Your task to perform on an android device: uninstall "Microsoft Excel" Image 0: 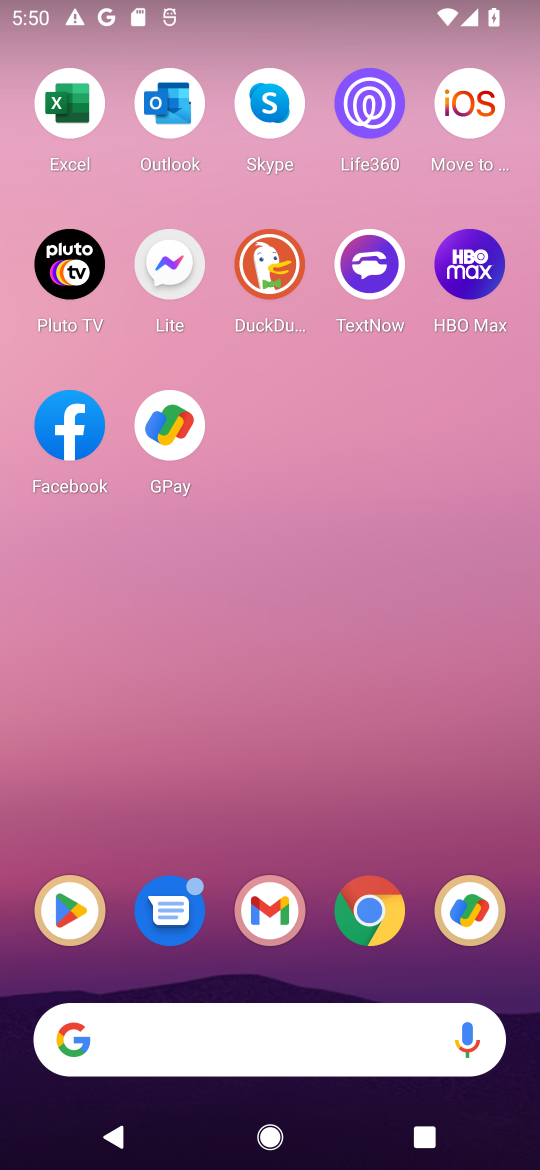
Step 0: drag from (312, 1009) to (312, 317)
Your task to perform on an android device: uninstall "Microsoft Excel" Image 1: 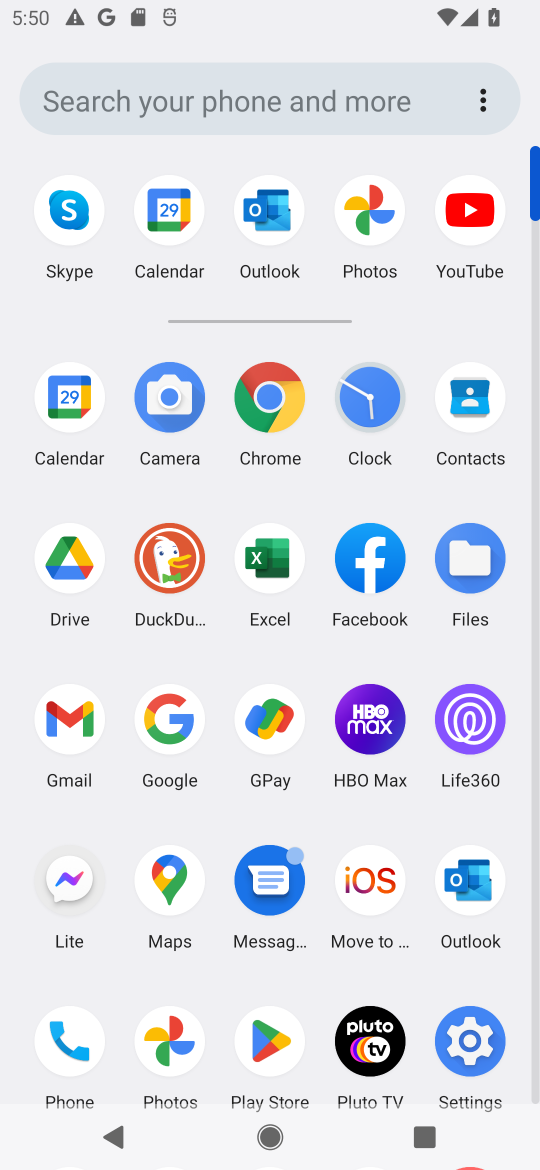
Step 1: click (269, 1041)
Your task to perform on an android device: uninstall "Microsoft Excel" Image 2: 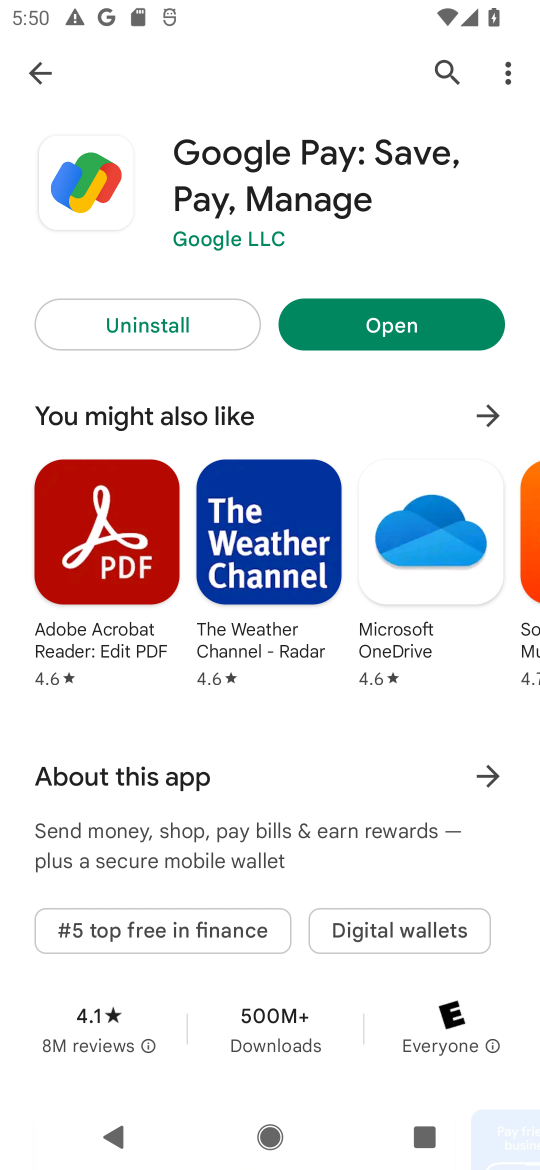
Step 2: click (42, 84)
Your task to perform on an android device: uninstall "Microsoft Excel" Image 3: 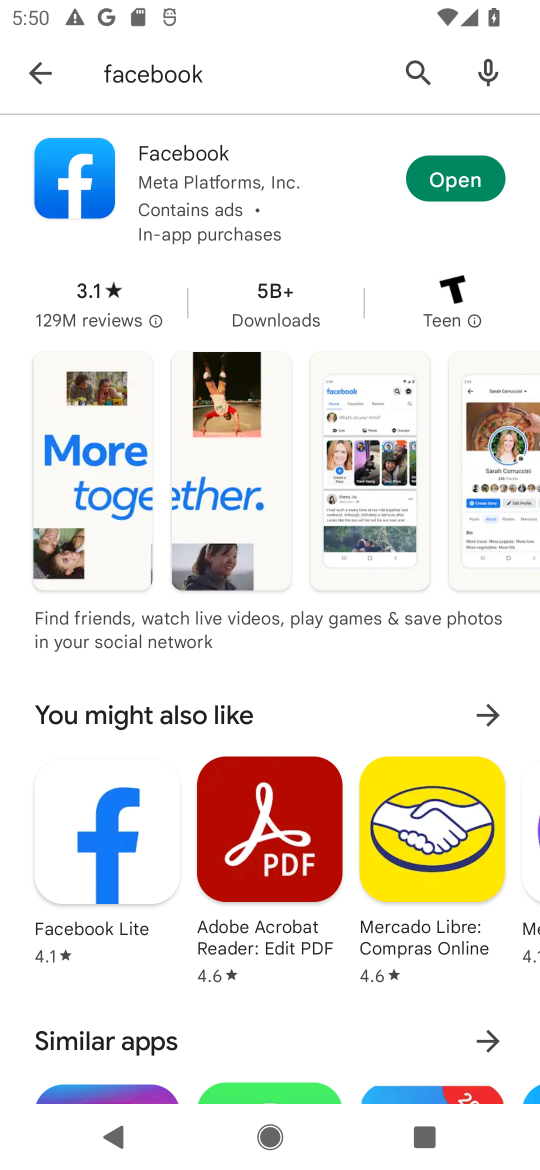
Step 3: type "Microsoft Excel"
Your task to perform on an android device: uninstall "Microsoft Excel" Image 4: 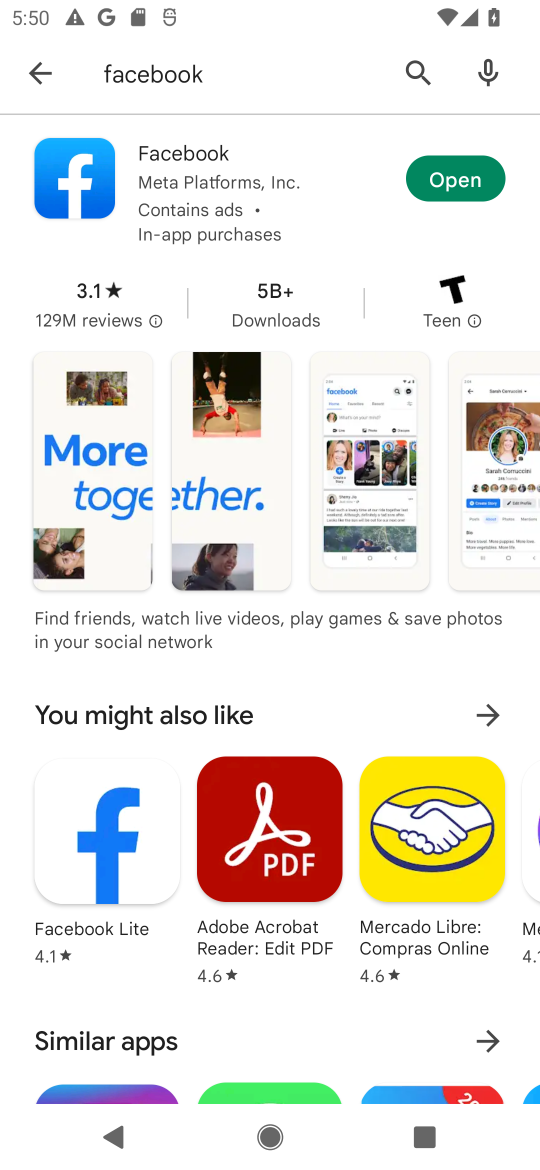
Step 4: click (51, 72)
Your task to perform on an android device: uninstall "Microsoft Excel" Image 5: 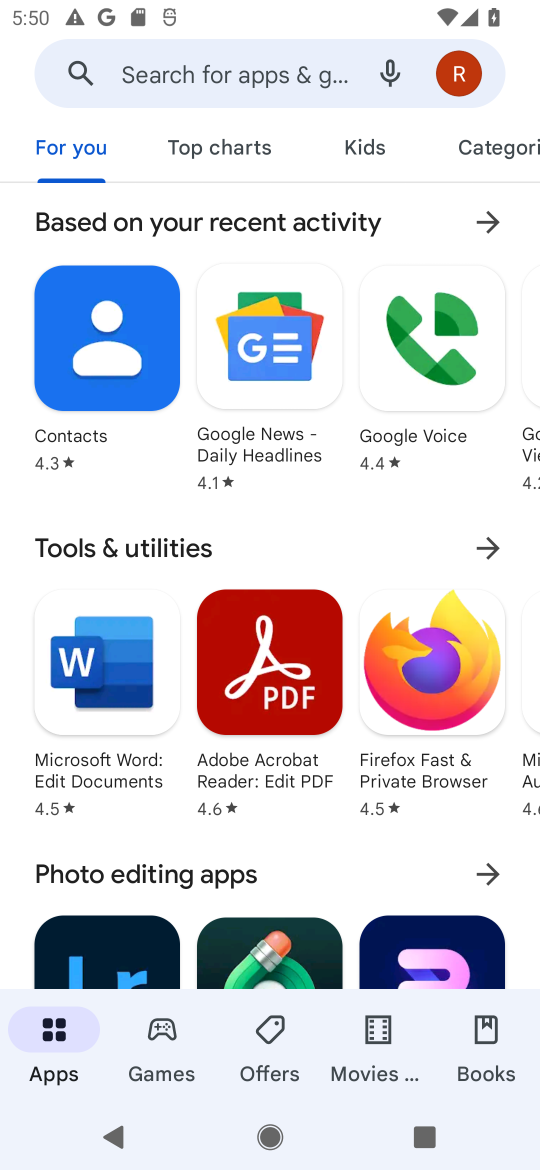
Step 5: click (148, 74)
Your task to perform on an android device: uninstall "Microsoft Excel" Image 6: 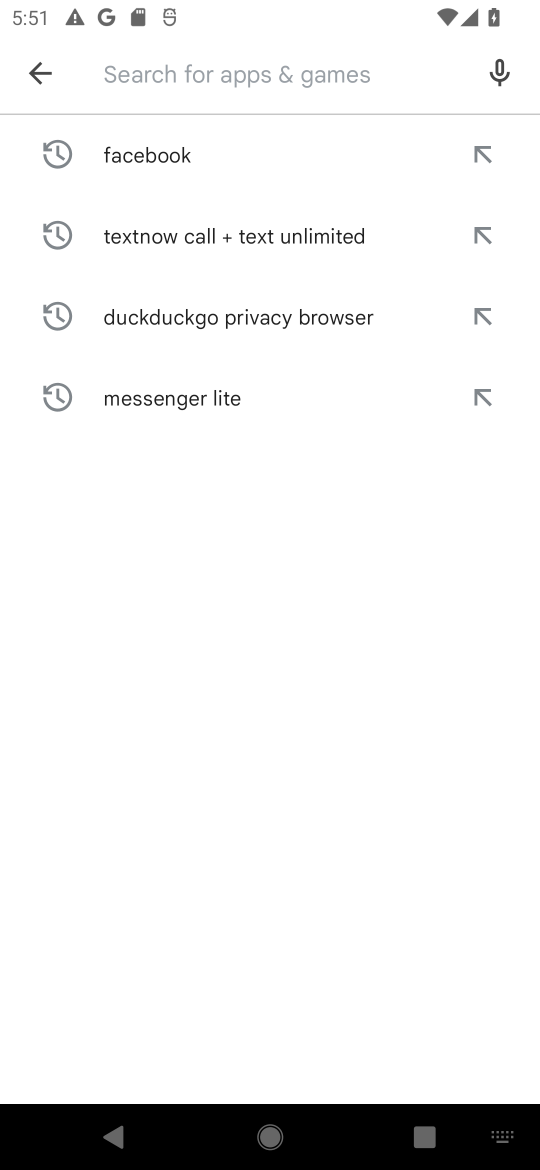
Step 6: type "Microsoft Excel"
Your task to perform on an android device: uninstall "Microsoft Excel" Image 7: 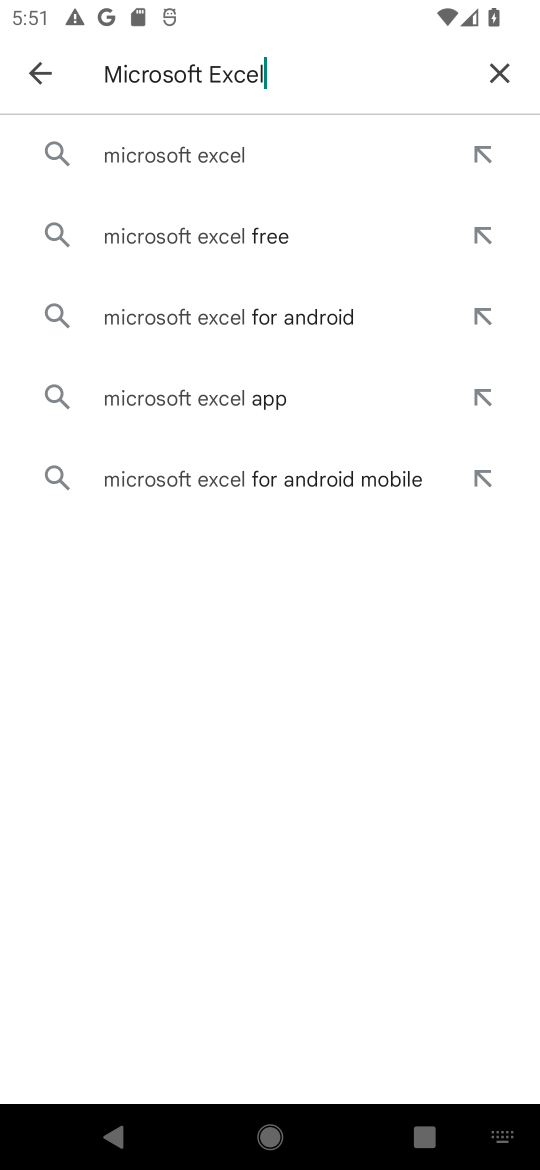
Step 7: click (172, 145)
Your task to perform on an android device: uninstall "Microsoft Excel" Image 8: 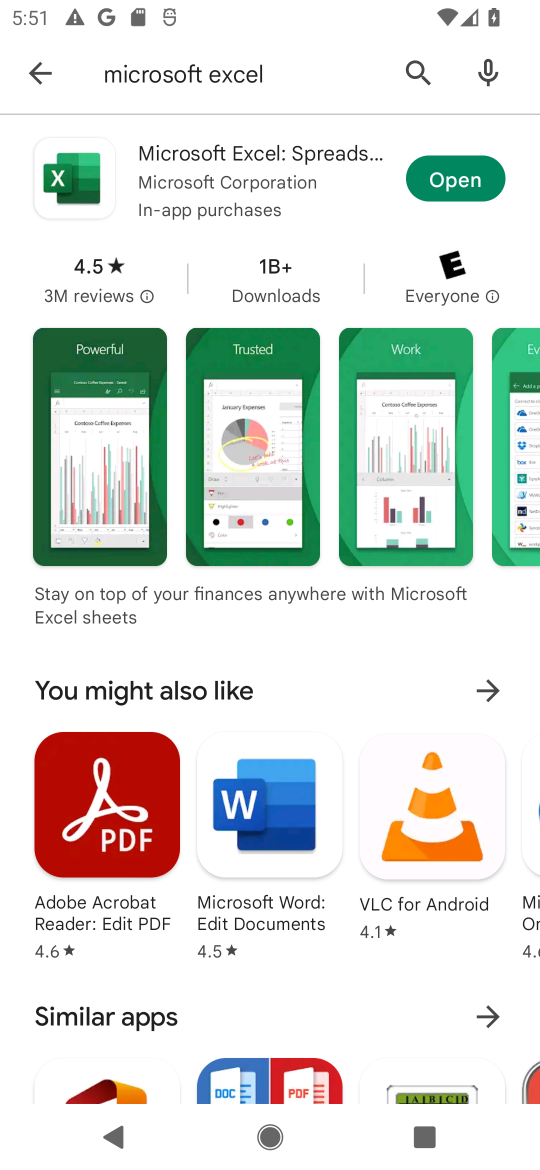
Step 8: click (308, 178)
Your task to perform on an android device: uninstall "Microsoft Excel" Image 9: 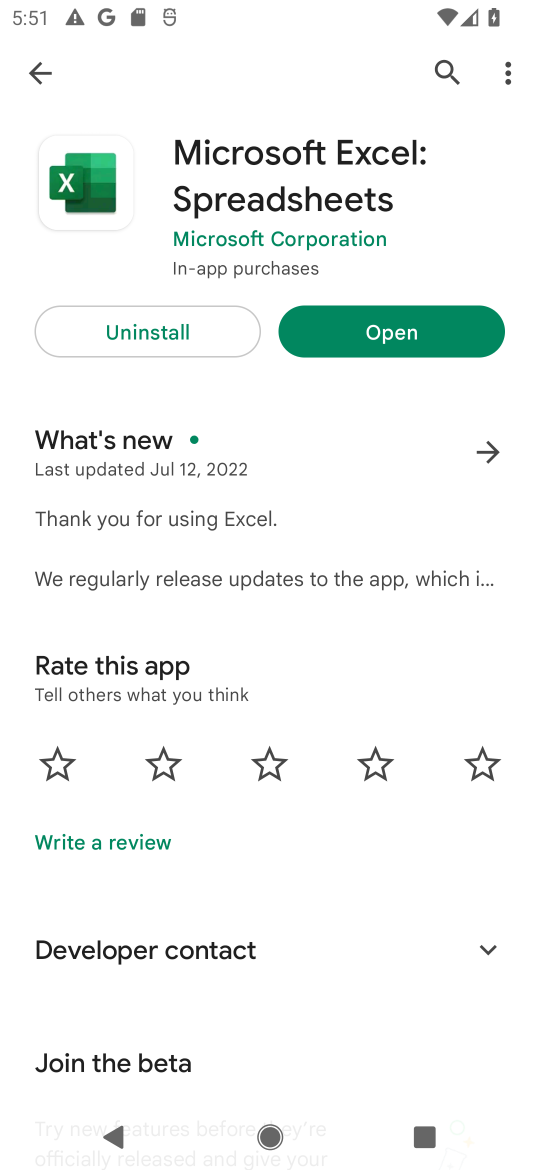
Step 9: click (164, 331)
Your task to perform on an android device: uninstall "Microsoft Excel" Image 10: 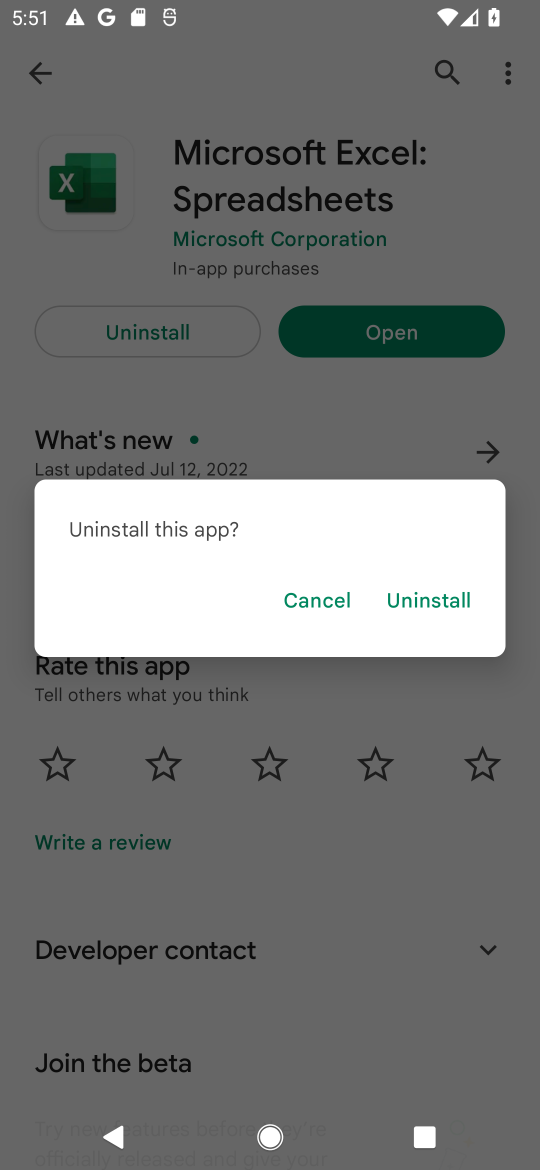
Step 10: click (409, 592)
Your task to perform on an android device: uninstall "Microsoft Excel" Image 11: 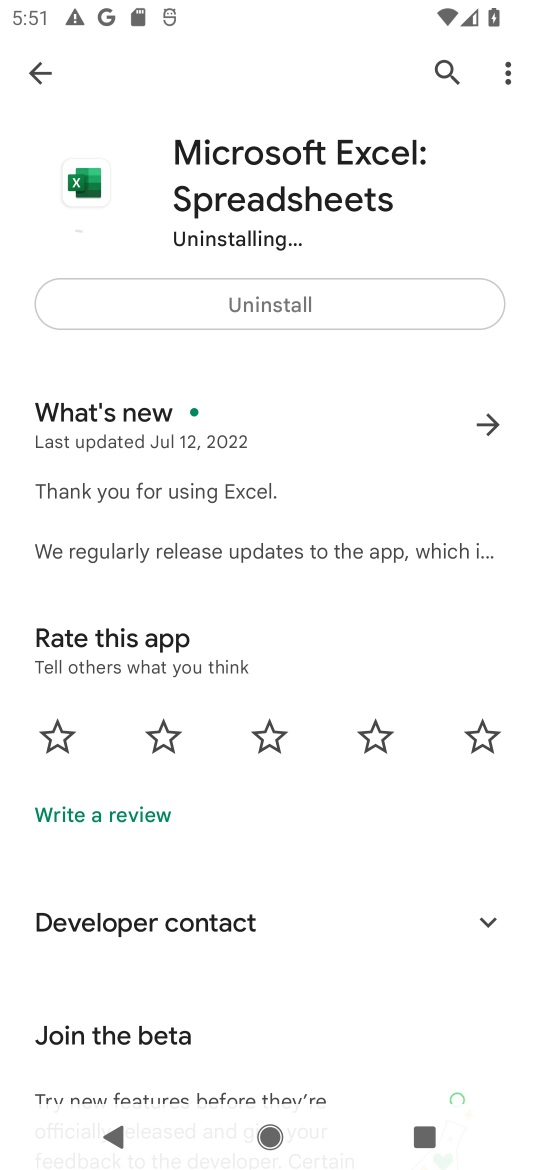
Step 11: task complete